Your task to perform on an android device: Turn on the flashlight Image 0: 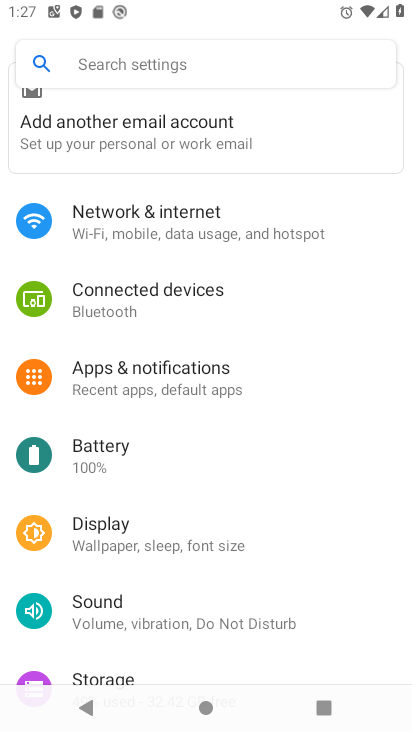
Step 0: click (200, 495)
Your task to perform on an android device: Turn on the flashlight Image 1: 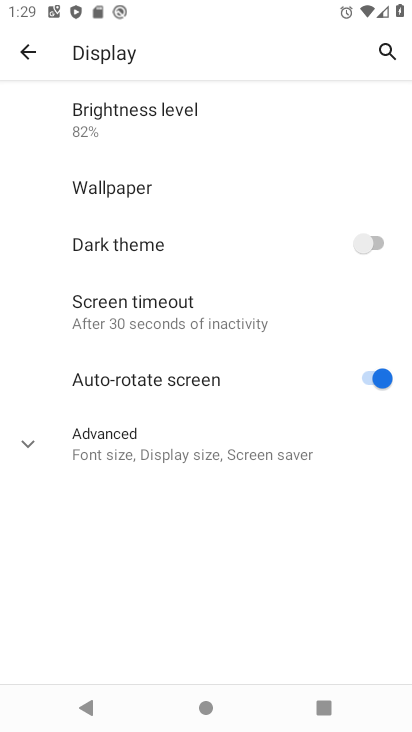
Step 1: task complete